Your task to perform on an android device: open app "NewsBreak: Local News & Alerts" (install if not already installed) Image 0: 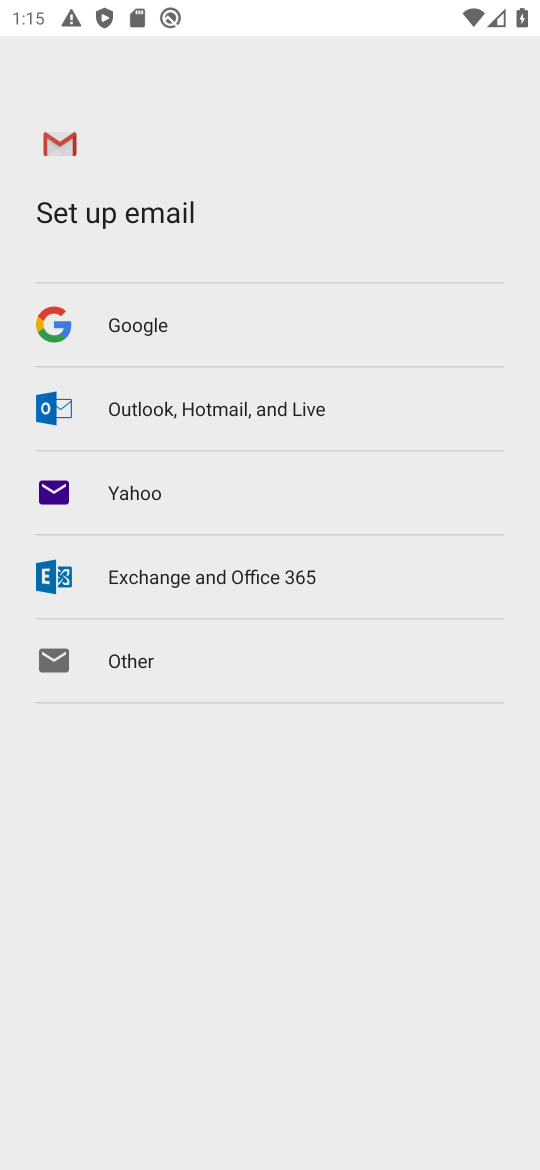
Step 0: press home button
Your task to perform on an android device: open app "NewsBreak: Local News & Alerts" (install if not already installed) Image 1: 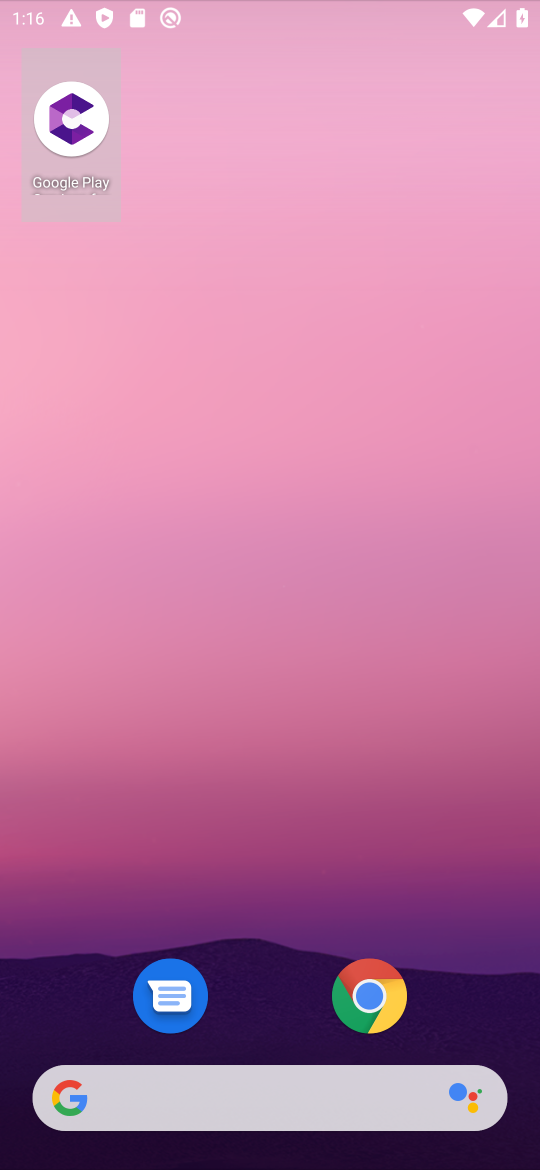
Step 1: drag from (165, 1060) to (378, 51)
Your task to perform on an android device: open app "NewsBreak: Local News & Alerts" (install if not already installed) Image 2: 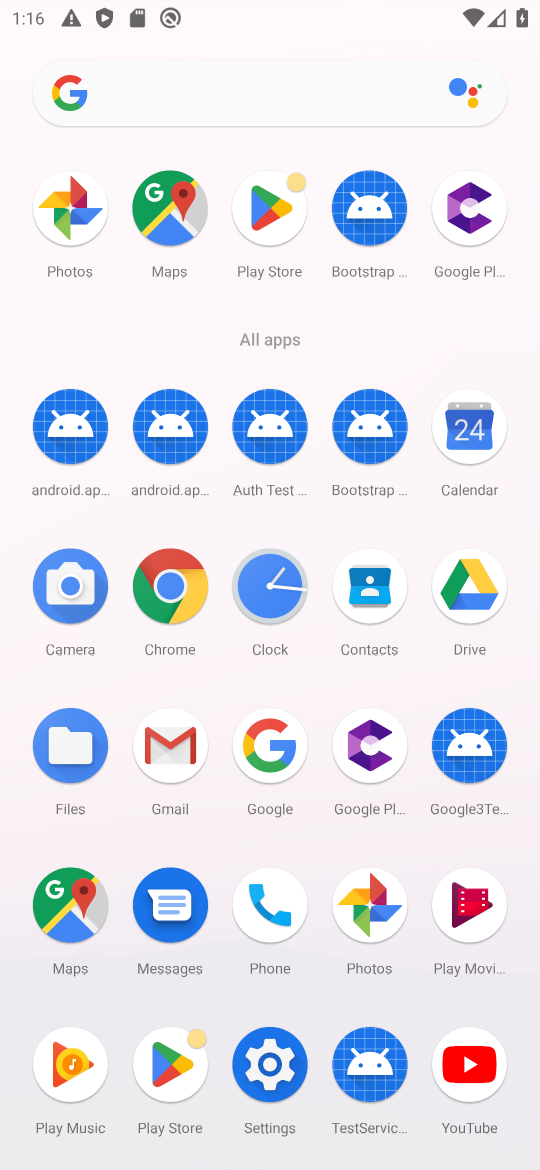
Step 2: click (261, 223)
Your task to perform on an android device: open app "NewsBreak: Local News & Alerts" (install if not already installed) Image 3: 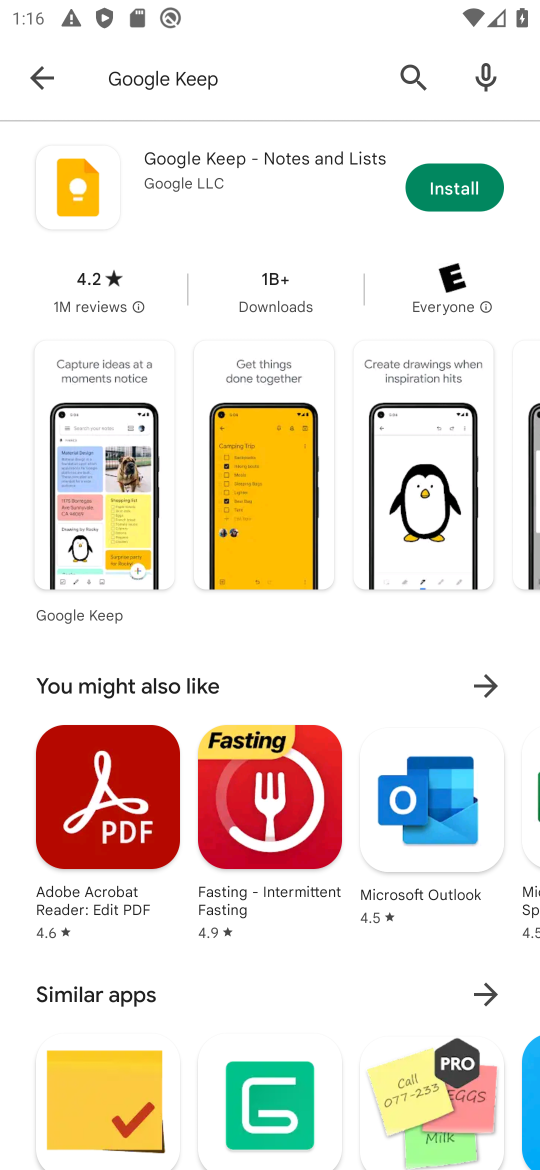
Step 3: press back button
Your task to perform on an android device: open app "NewsBreak: Local News & Alerts" (install if not already installed) Image 4: 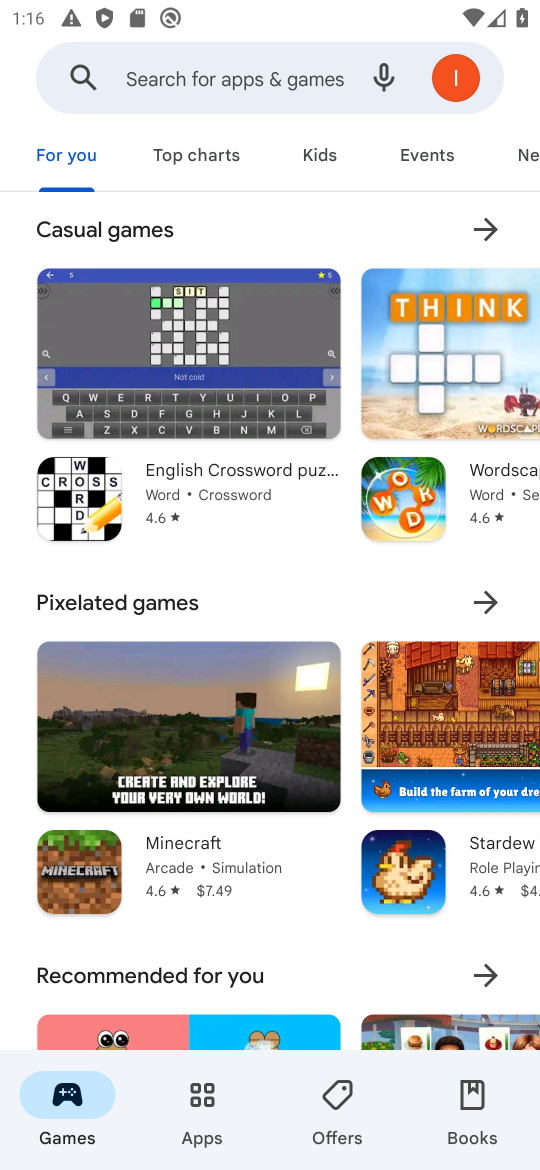
Step 4: click (197, 75)
Your task to perform on an android device: open app "NewsBreak: Local News & Alerts" (install if not already installed) Image 5: 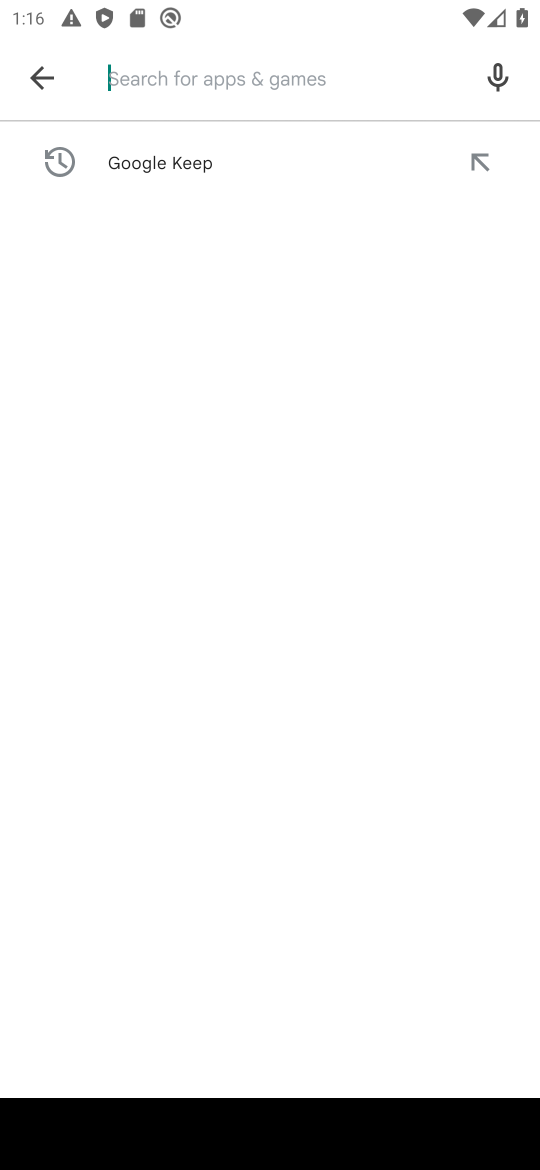
Step 5: type "NewsBreak: Local News & Alerts"
Your task to perform on an android device: open app "NewsBreak: Local News & Alerts" (install if not already installed) Image 6: 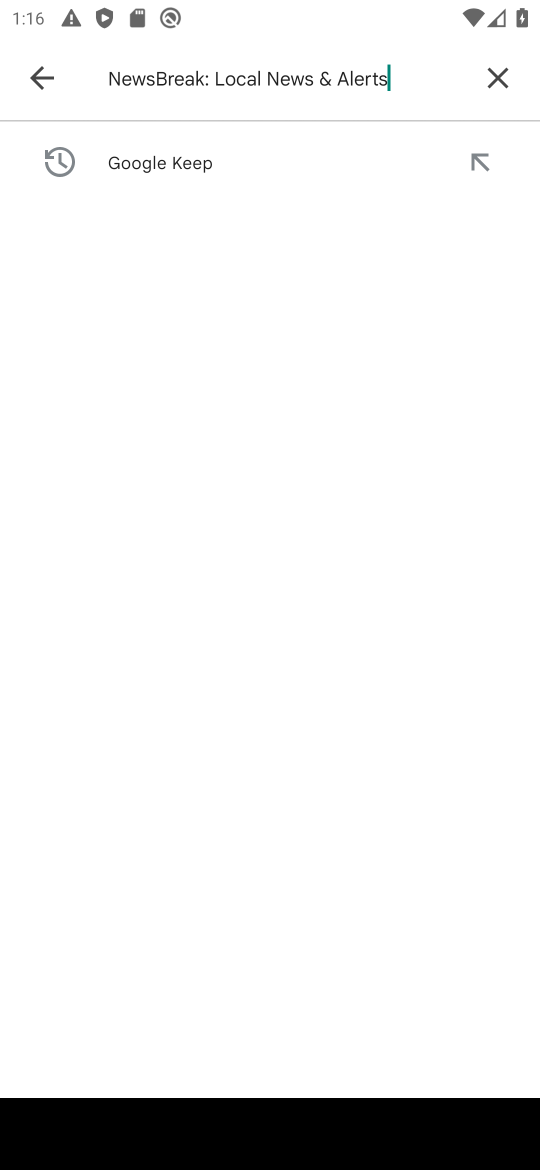
Step 6: press enter
Your task to perform on an android device: open app "NewsBreak: Local News & Alerts" (install if not already installed) Image 7: 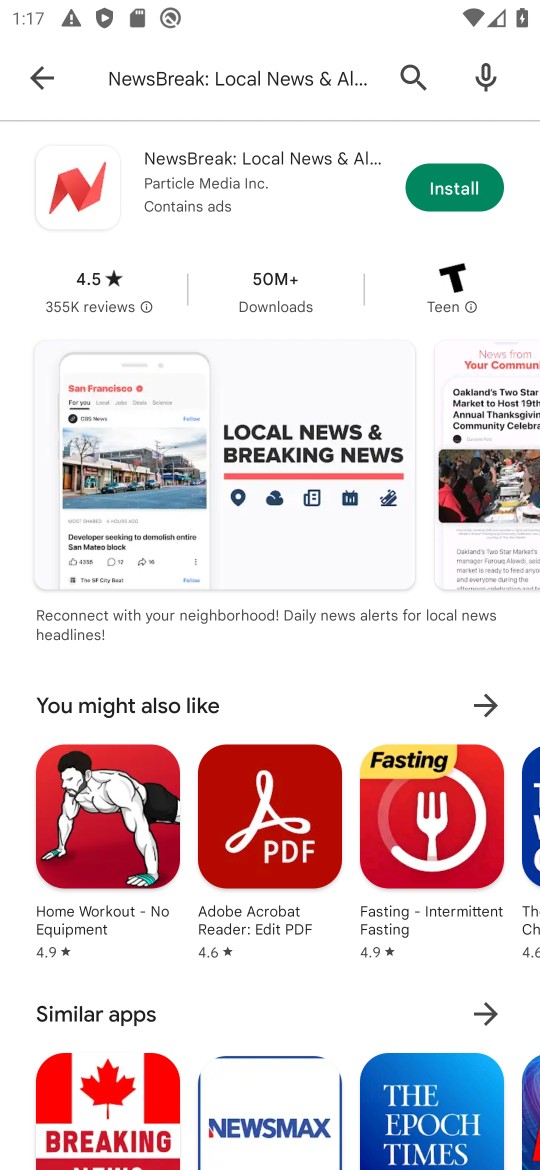
Step 7: click (450, 169)
Your task to perform on an android device: open app "NewsBreak: Local News & Alerts" (install if not already installed) Image 8: 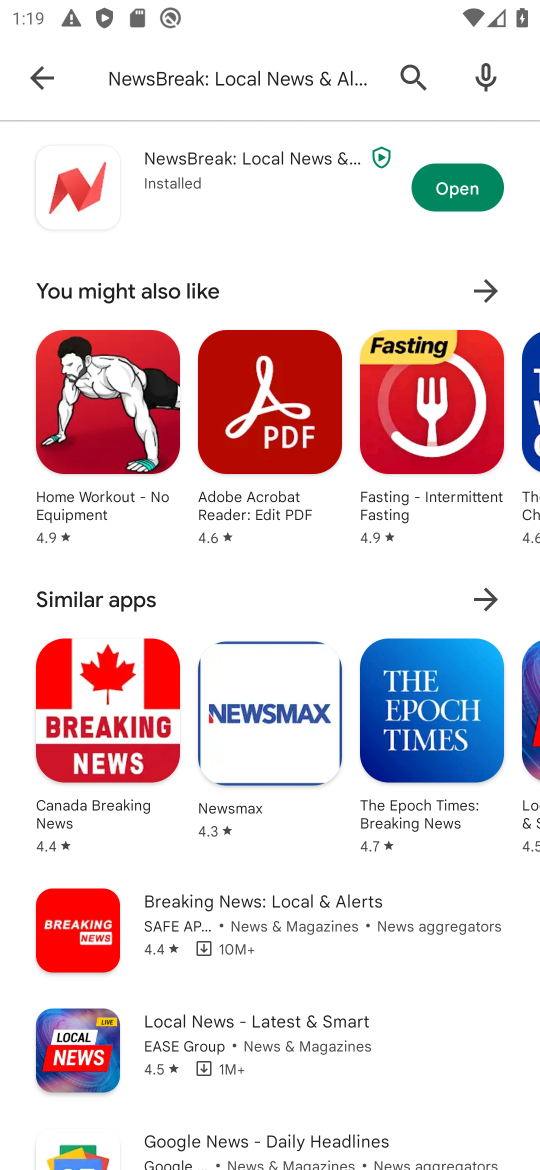
Step 8: click (445, 182)
Your task to perform on an android device: open app "NewsBreak: Local News & Alerts" (install if not already installed) Image 9: 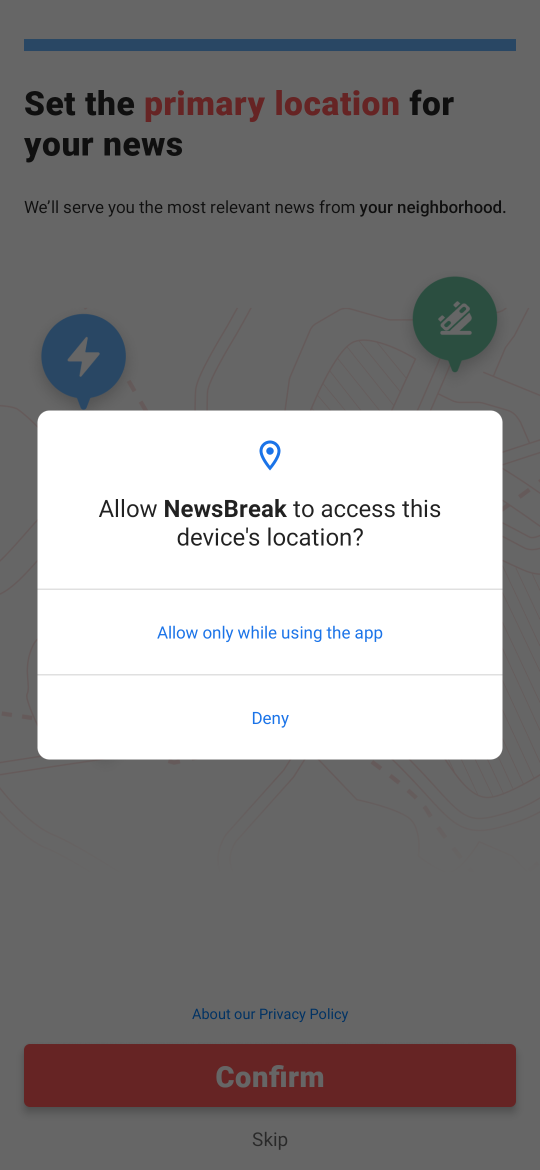
Step 9: task complete